Your task to perform on an android device: toggle notification dots Image 0: 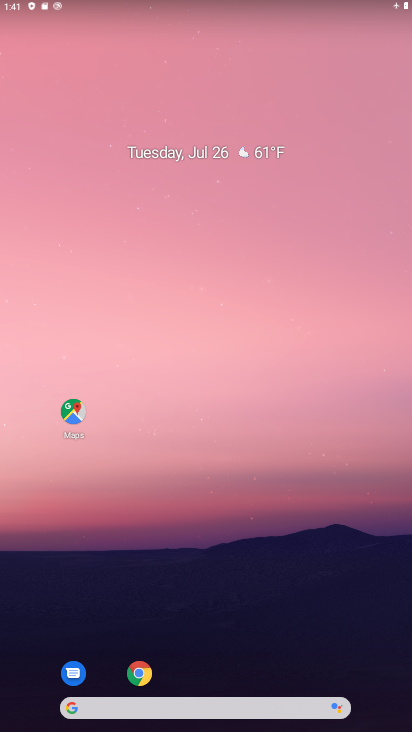
Step 0: drag from (210, 659) to (338, 131)
Your task to perform on an android device: toggle notification dots Image 1: 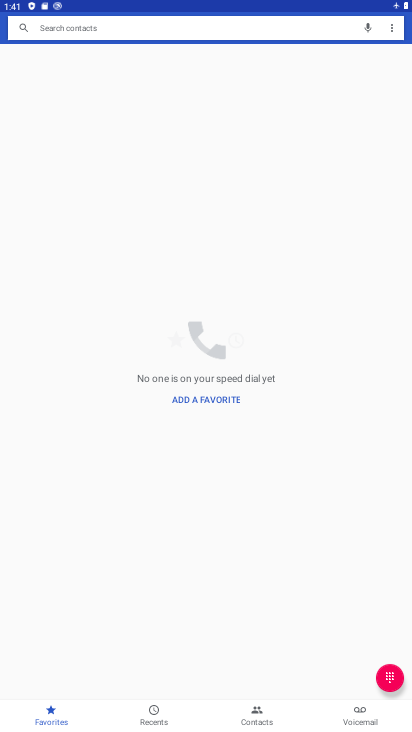
Step 1: press home button
Your task to perform on an android device: toggle notification dots Image 2: 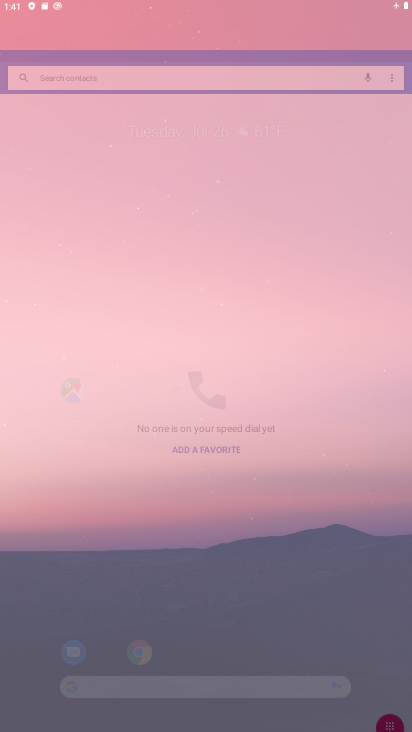
Step 2: drag from (235, 570) to (313, 175)
Your task to perform on an android device: toggle notification dots Image 3: 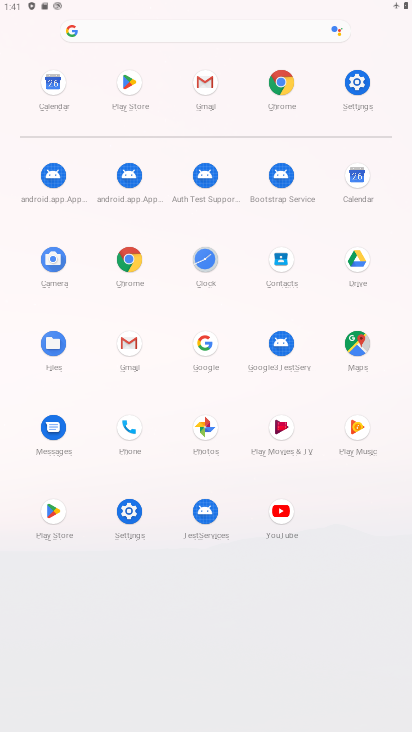
Step 3: click (359, 89)
Your task to perform on an android device: toggle notification dots Image 4: 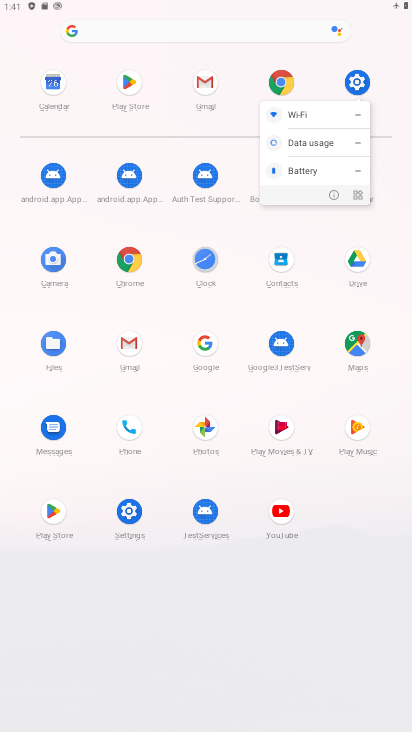
Step 4: click (331, 193)
Your task to perform on an android device: toggle notification dots Image 5: 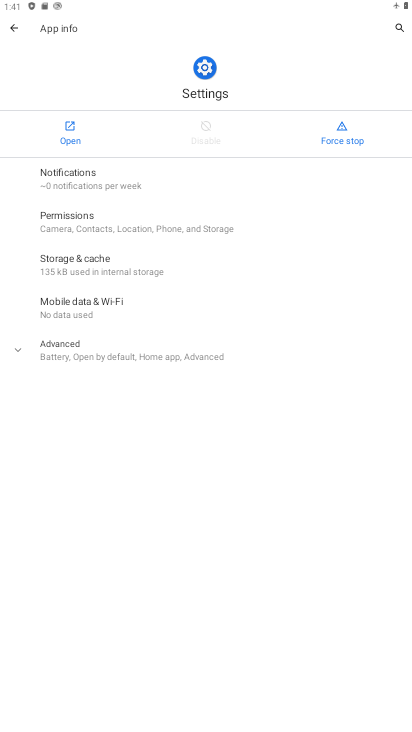
Step 5: click (65, 139)
Your task to perform on an android device: toggle notification dots Image 6: 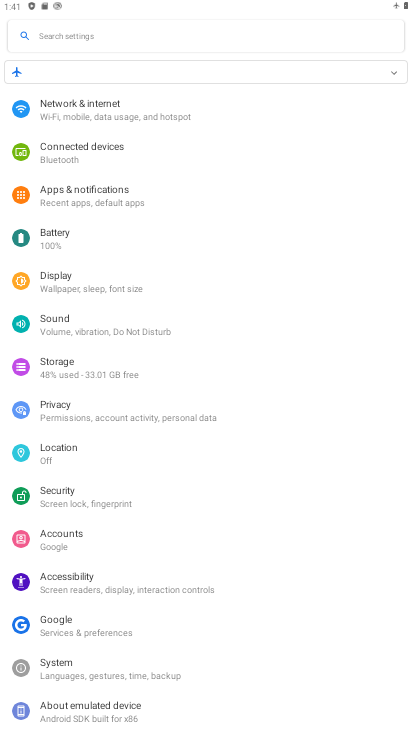
Step 6: click (132, 198)
Your task to perform on an android device: toggle notification dots Image 7: 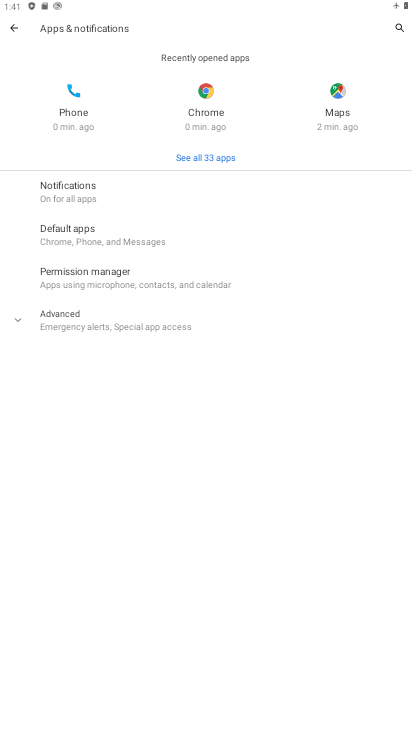
Step 7: click (122, 191)
Your task to perform on an android device: toggle notification dots Image 8: 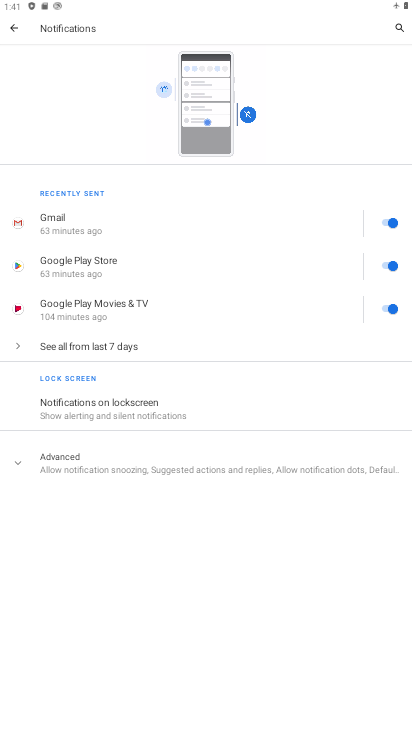
Step 8: click (149, 473)
Your task to perform on an android device: toggle notification dots Image 9: 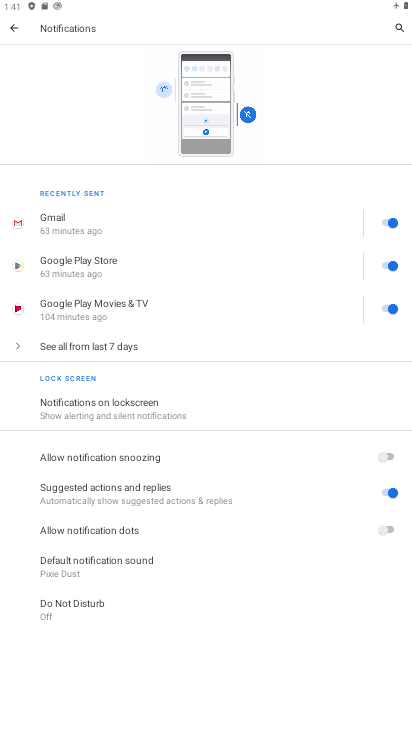
Step 9: drag from (214, 449) to (223, 199)
Your task to perform on an android device: toggle notification dots Image 10: 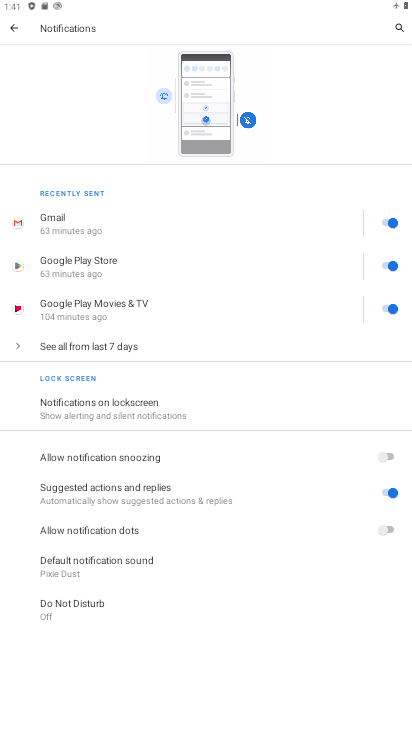
Step 10: click (369, 526)
Your task to perform on an android device: toggle notification dots Image 11: 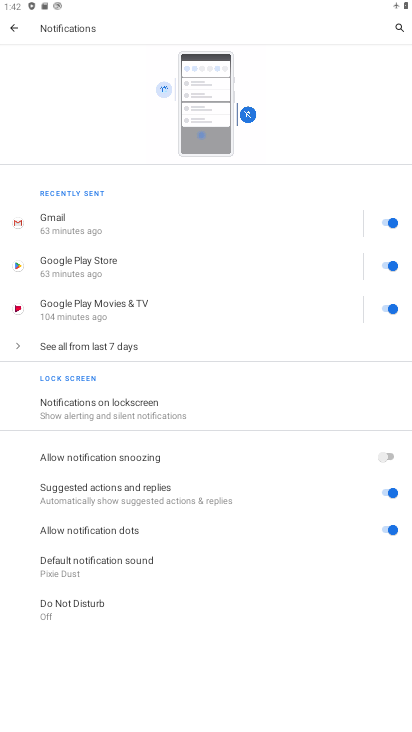
Step 11: task complete